Your task to perform on an android device: Open the stopwatch Image 0: 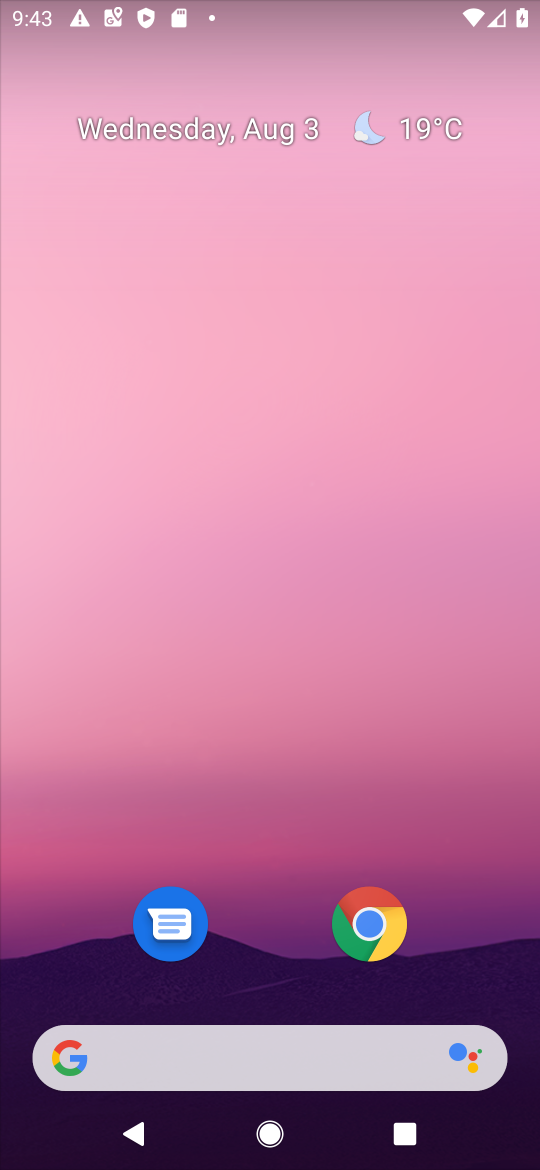
Step 0: press home button
Your task to perform on an android device: Open the stopwatch Image 1: 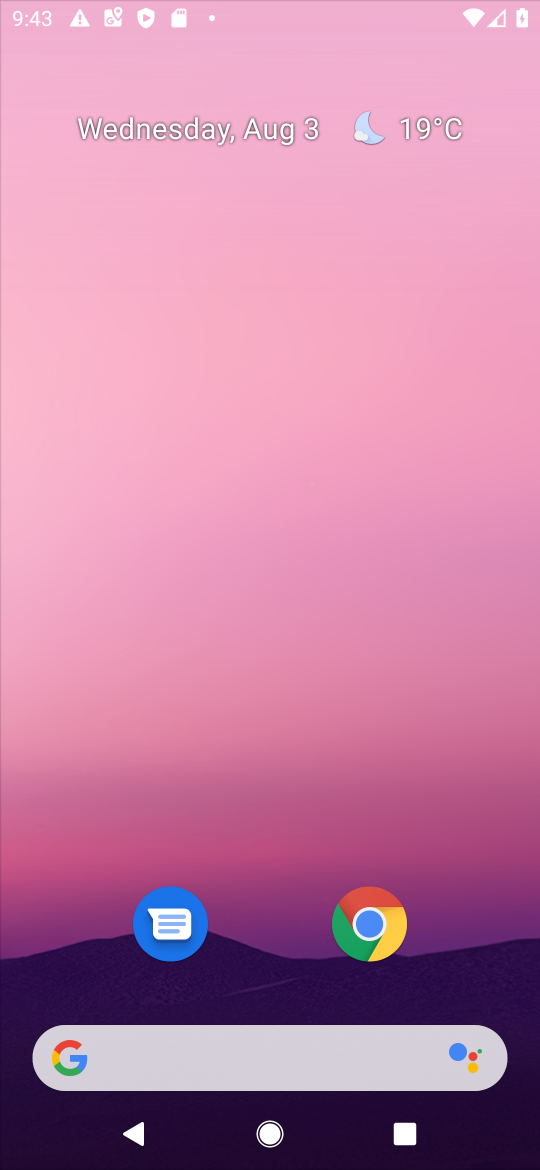
Step 1: drag from (265, 996) to (336, 87)
Your task to perform on an android device: Open the stopwatch Image 2: 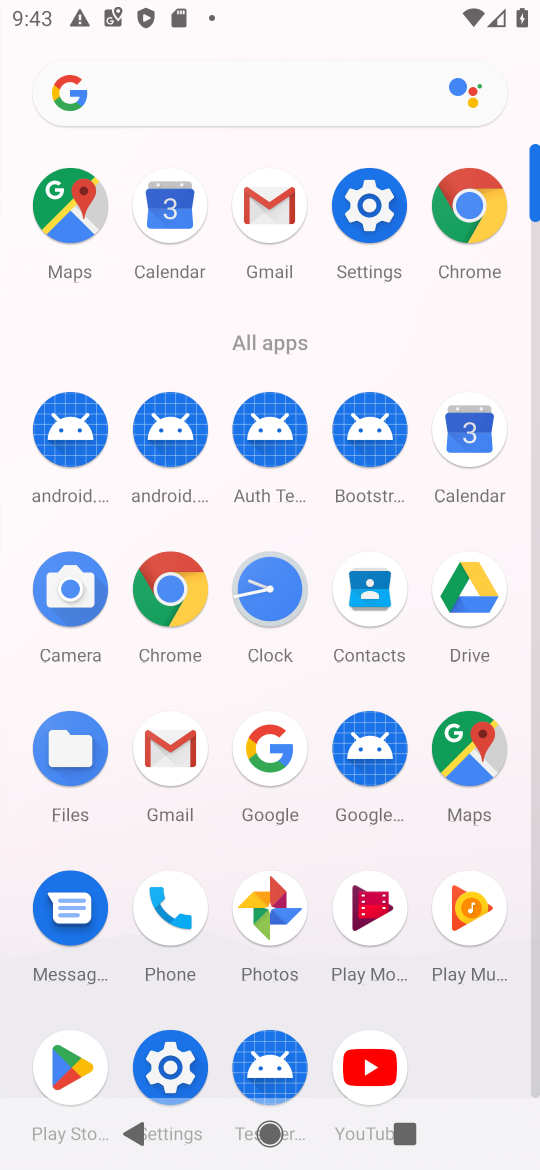
Step 2: click (264, 577)
Your task to perform on an android device: Open the stopwatch Image 3: 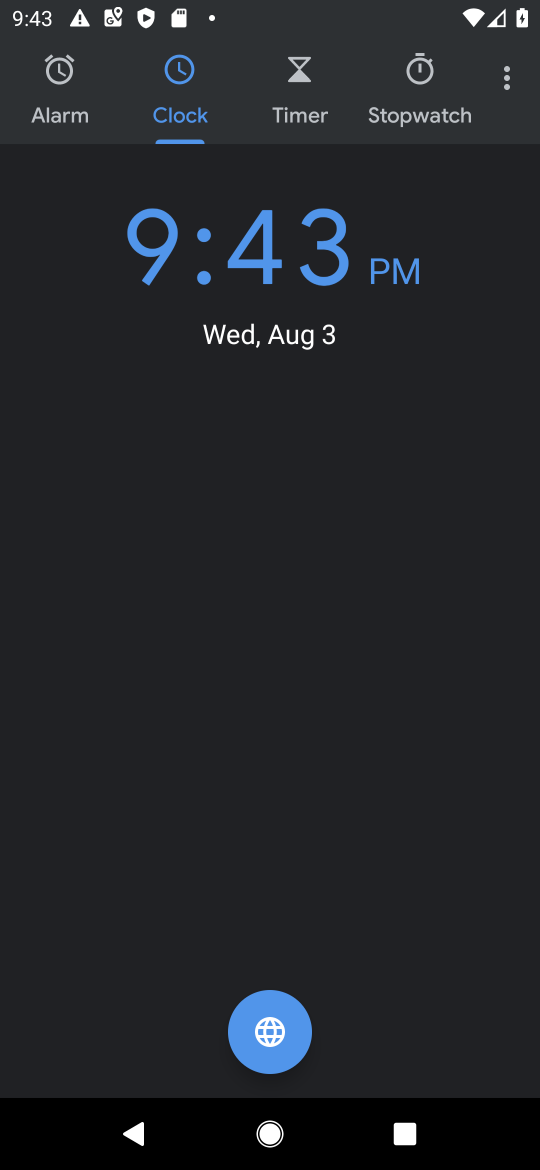
Step 3: click (415, 62)
Your task to perform on an android device: Open the stopwatch Image 4: 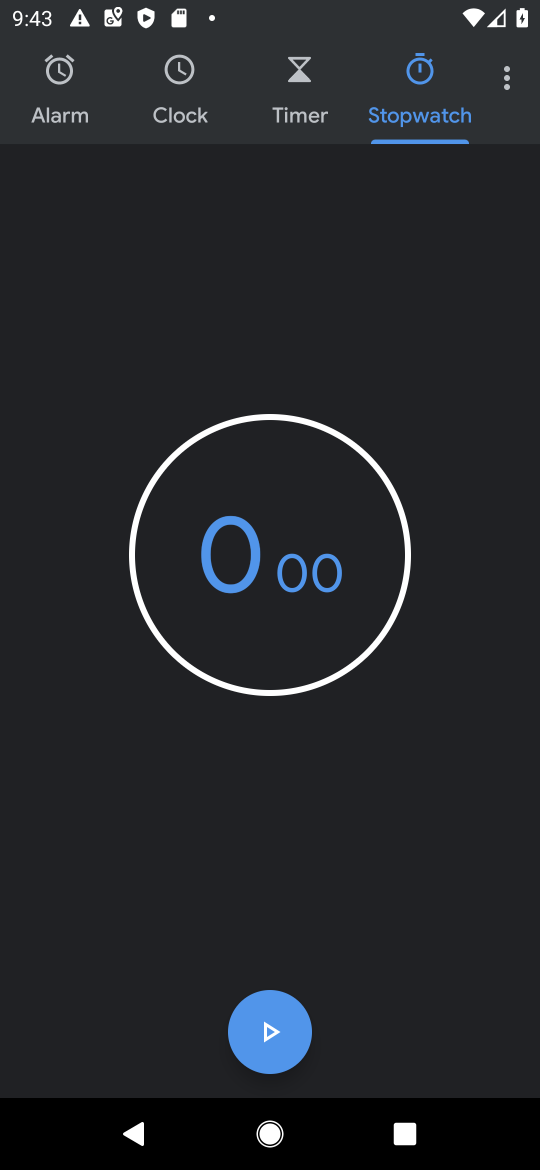
Step 4: click (265, 1020)
Your task to perform on an android device: Open the stopwatch Image 5: 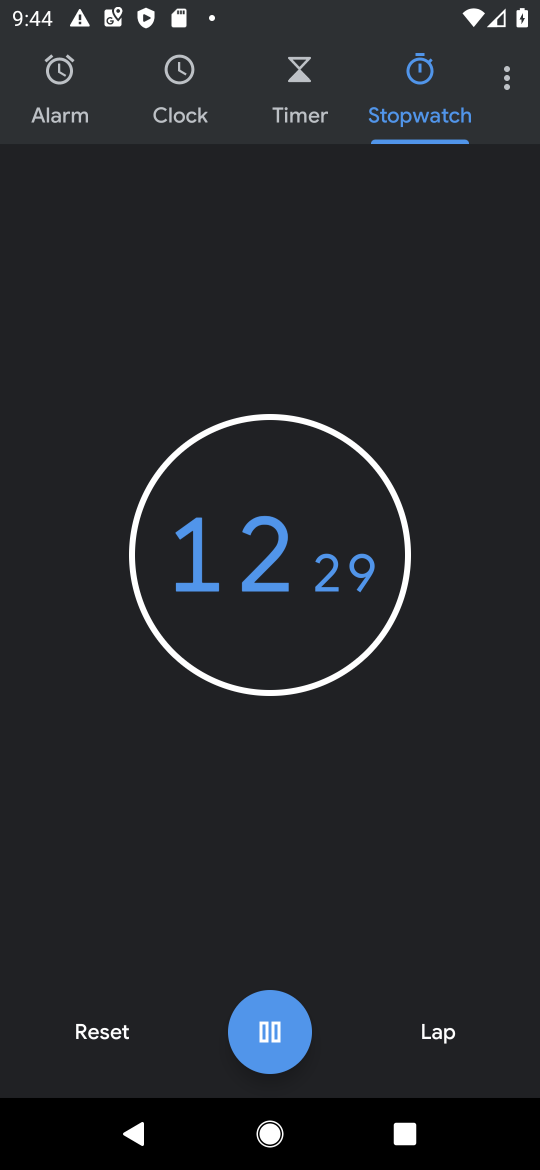
Step 5: task complete